Your task to perform on an android device: What's the weather going to be this weekend? Image 0: 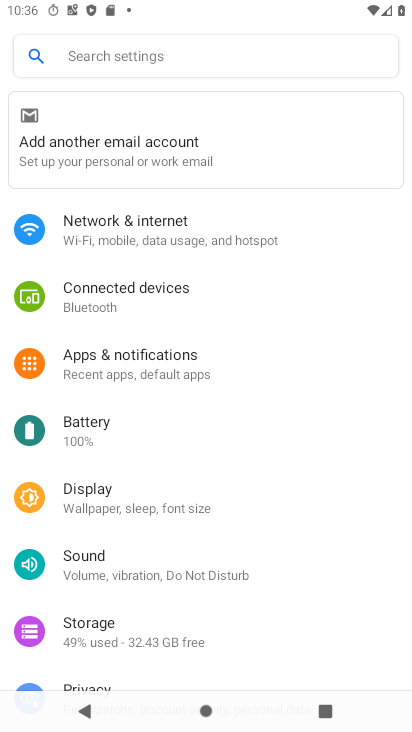
Step 0: press home button
Your task to perform on an android device: What's the weather going to be this weekend? Image 1: 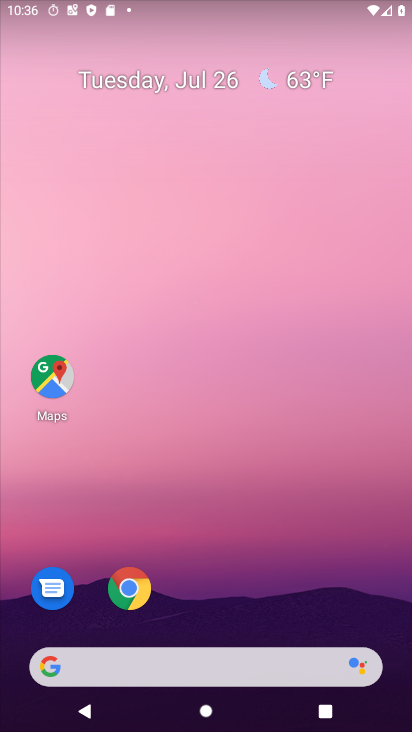
Step 1: click (149, 657)
Your task to perform on an android device: What's the weather going to be this weekend? Image 2: 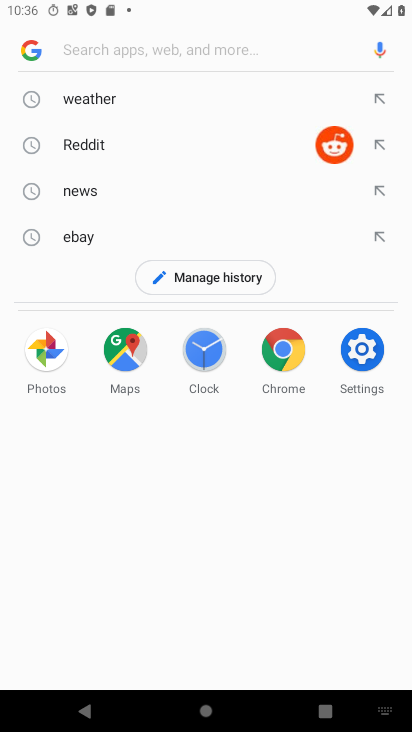
Step 2: click (77, 90)
Your task to perform on an android device: What's the weather going to be this weekend? Image 3: 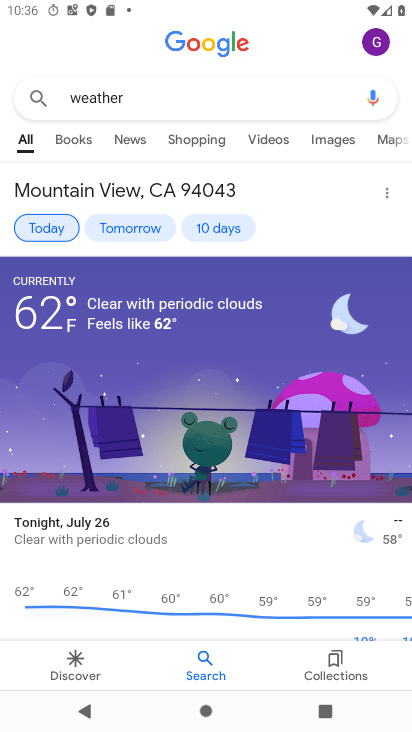
Step 3: click (221, 221)
Your task to perform on an android device: What's the weather going to be this weekend? Image 4: 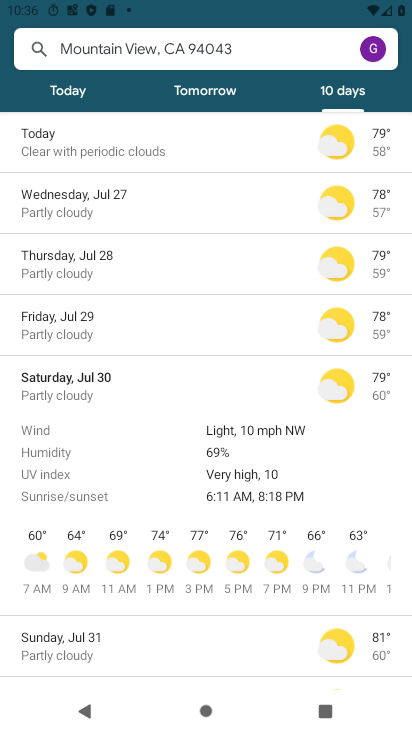
Step 4: click (100, 376)
Your task to perform on an android device: What's the weather going to be this weekend? Image 5: 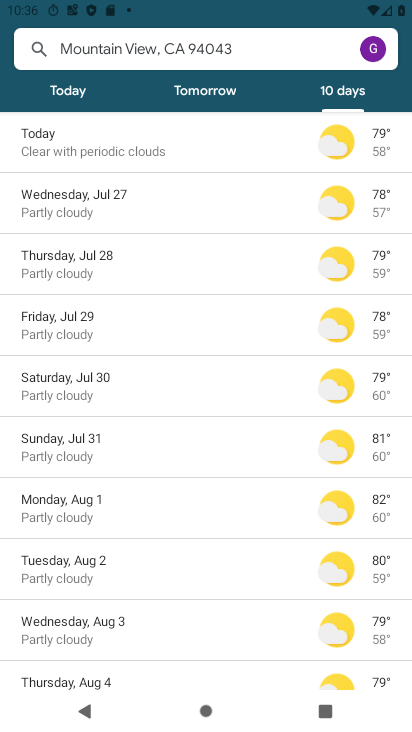
Step 5: click (100, 376)
Your task to perform on an android device: What's the weather going to be this weekend? Image 6: 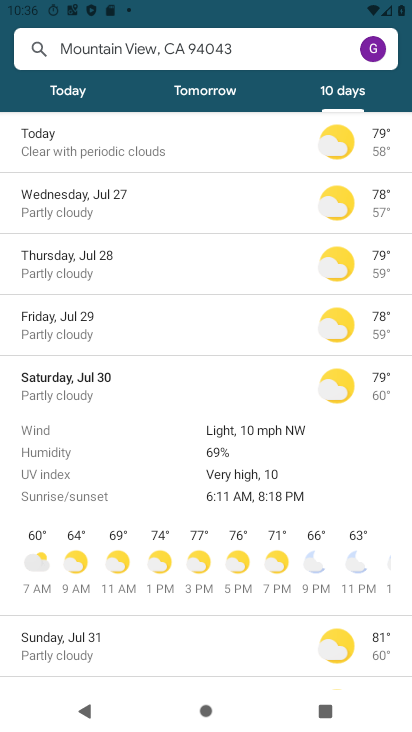
Step 6: task complete